Your task to perform on an android device: Go to battery settings Image 0: 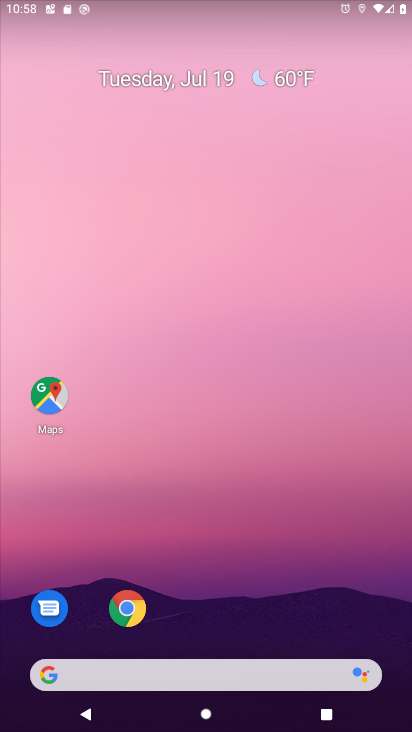
Step 0: drag from (194, 645) to (370, 108)
Your task to perform on an android device: Go to battery settings Image 1: 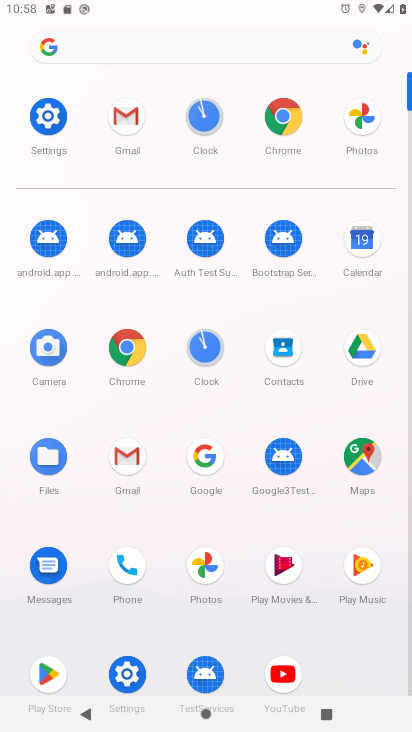
Step 1: click (48, 123)
Your task to perform on an android device: Go to battery settings Image 2: 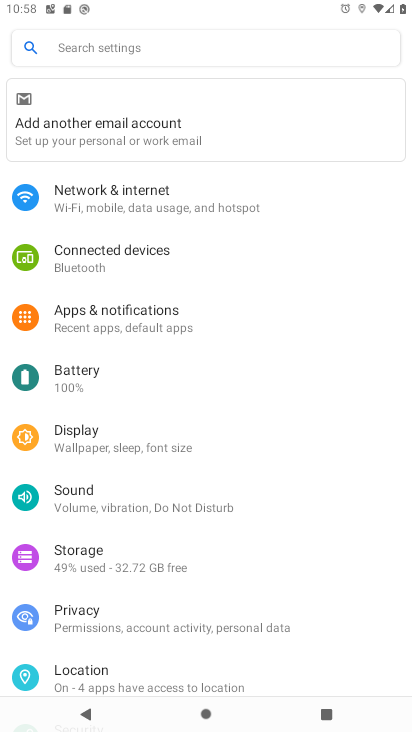
Step 2: click (68, 386)
Your task to perform on an android device: Go to battery settings Image 3: 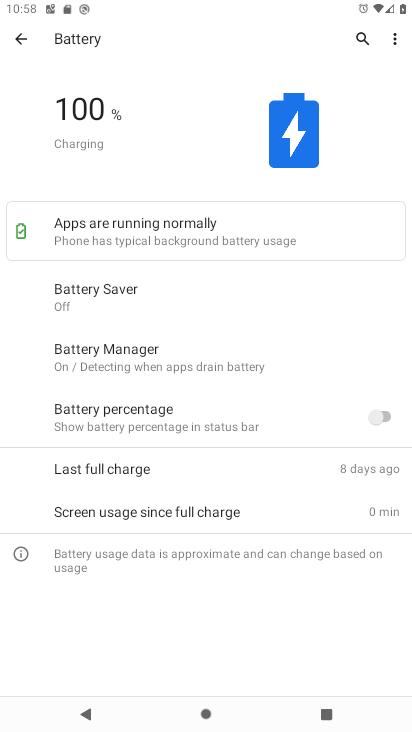
Step 3: task complete